Your task to perform on an android device: Add dell xps to the cart on newegg.com Image 0: 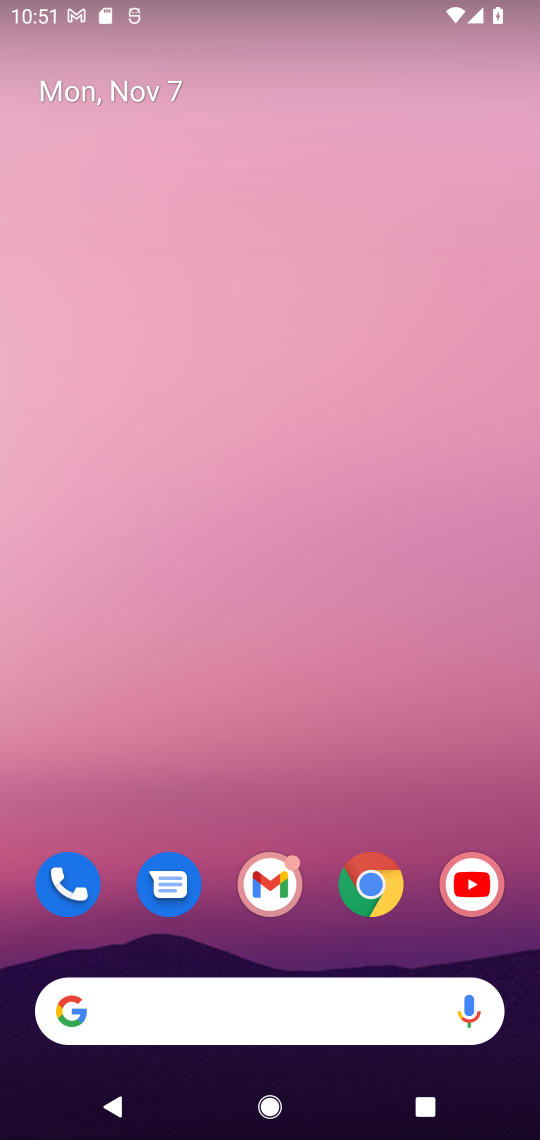
Step 0: click (365, 867)
Your task to perform on an android device: Add dell xps to the cart on newegg.com Image 1: 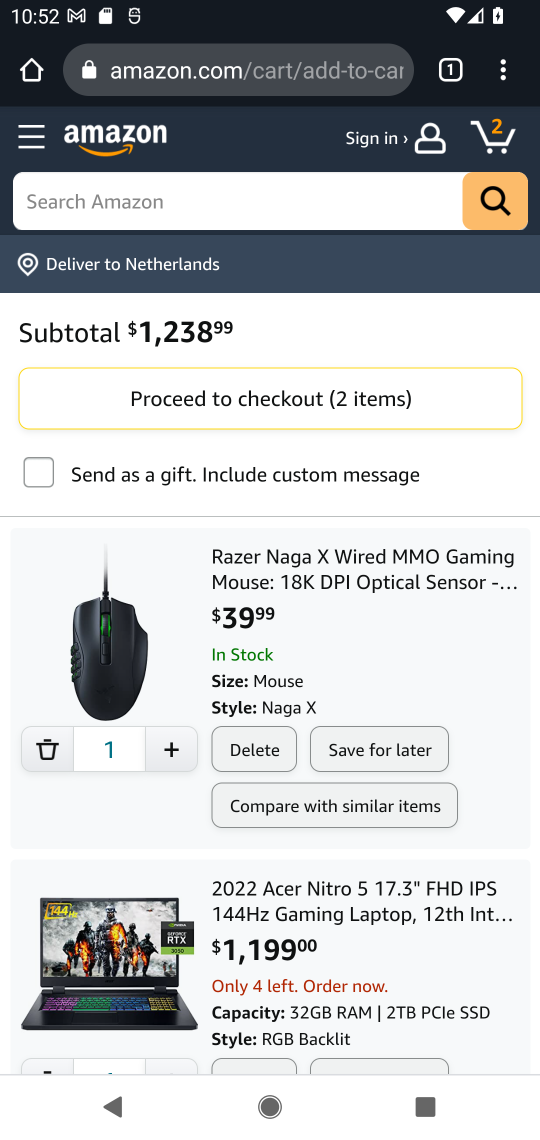
Step 1: click (256, 73)
Your task to perform on an android device: Add dell xps to the cart on newegg.com Image 2: 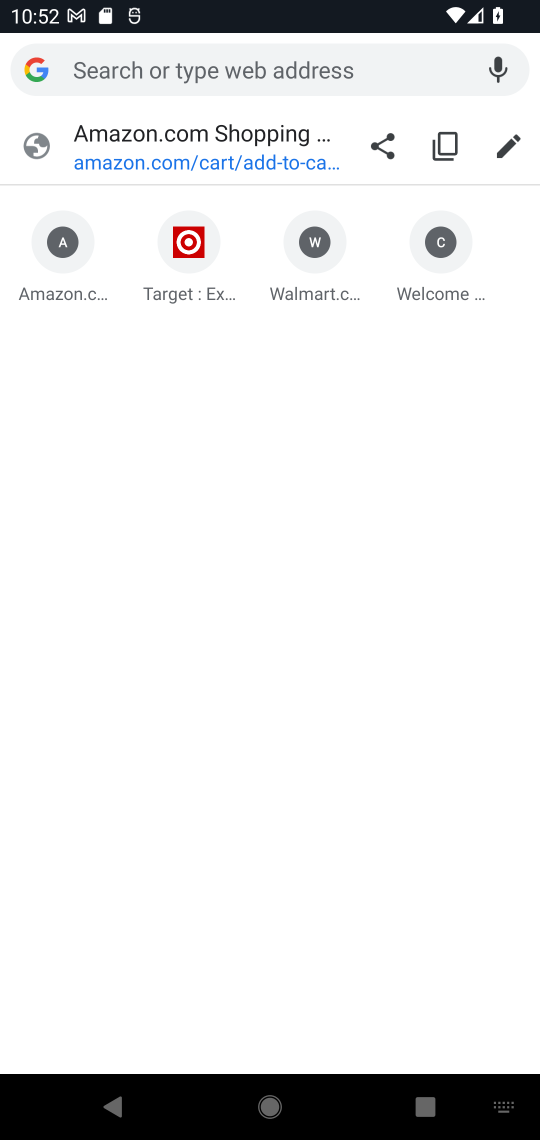
Step 2: type "newegg.com"
Your task to perform on an android device: Add dell xps to the cart on newegg.com Image 3: 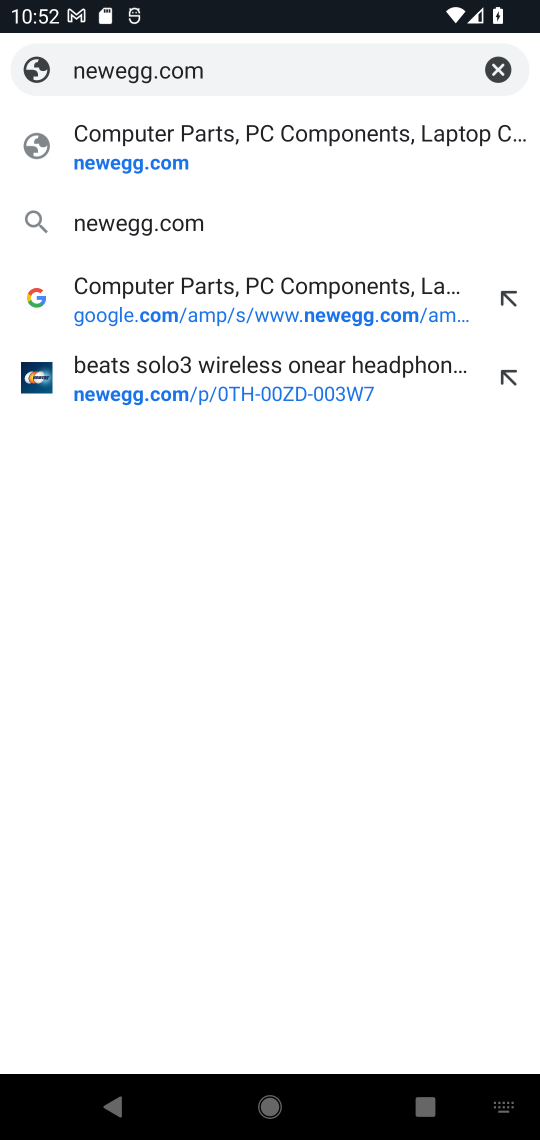
Step 3: click (186, 219)
Your task to perform on an android device: Add dell xps to the cart on newegg.com Image 4: 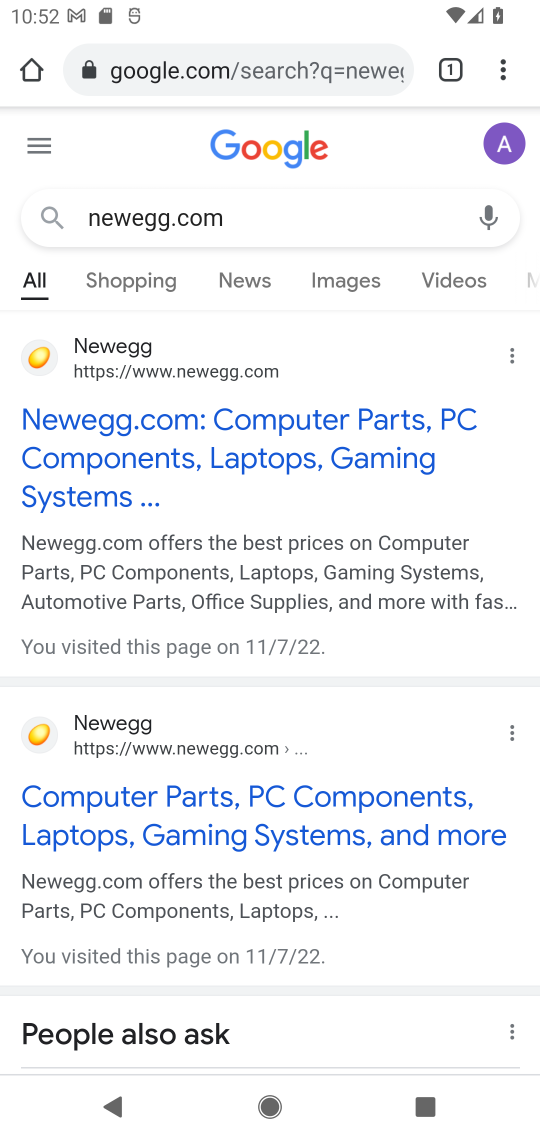
Step 4: click (142, 370)
Your task to perform on an android device: Add dell xps to the cart on newegg.com Image 5: 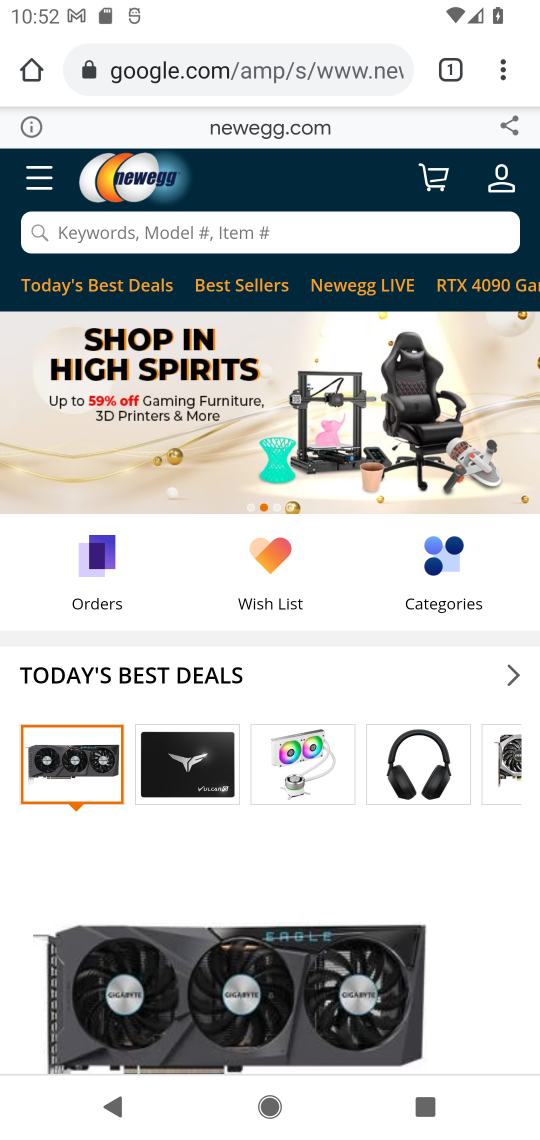
Step 5: click (220, 227)
Your task to perform on an android device: Add dell xps to the cart on newegg.com Image 6: 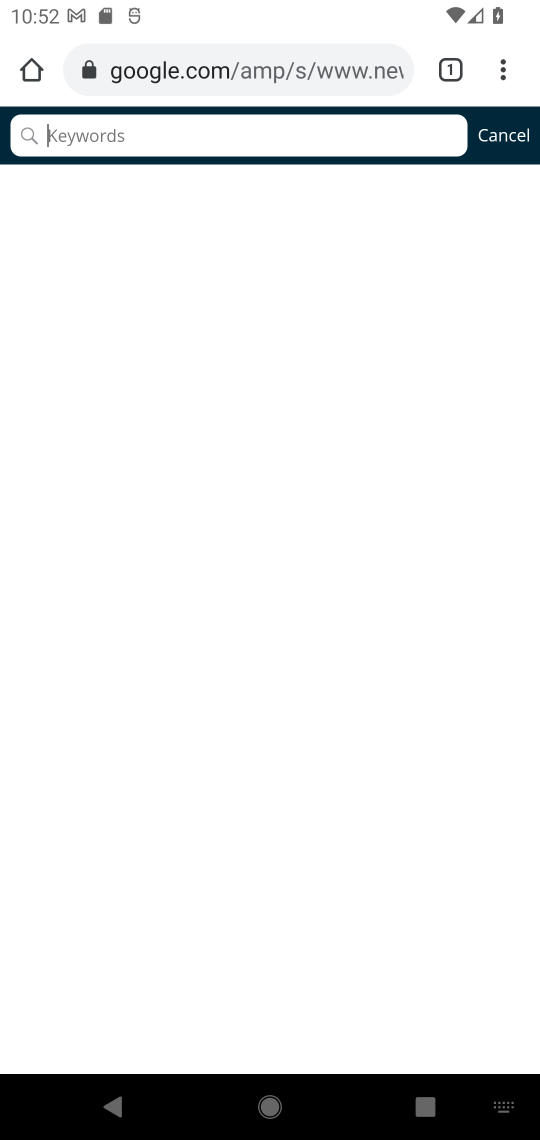
Step 6: type "dell xps"
Your task to perform on an android device: Add dell xps to the cart on newegg.com Image 7: 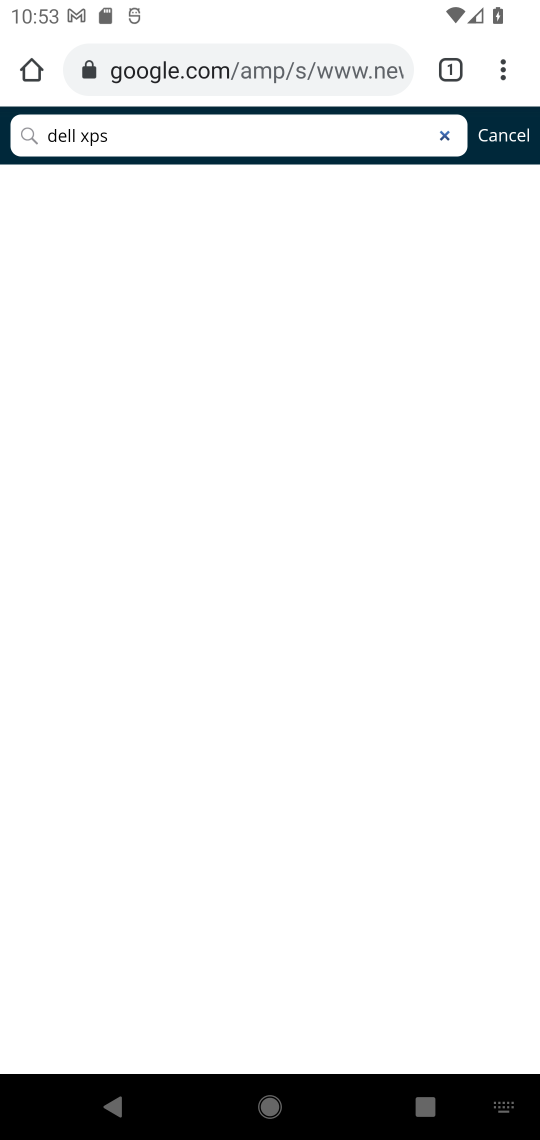
Step 7: click (362, 130)
Your task to perform on an android device: Add dell xps to the cart on newegg.com Image 8: 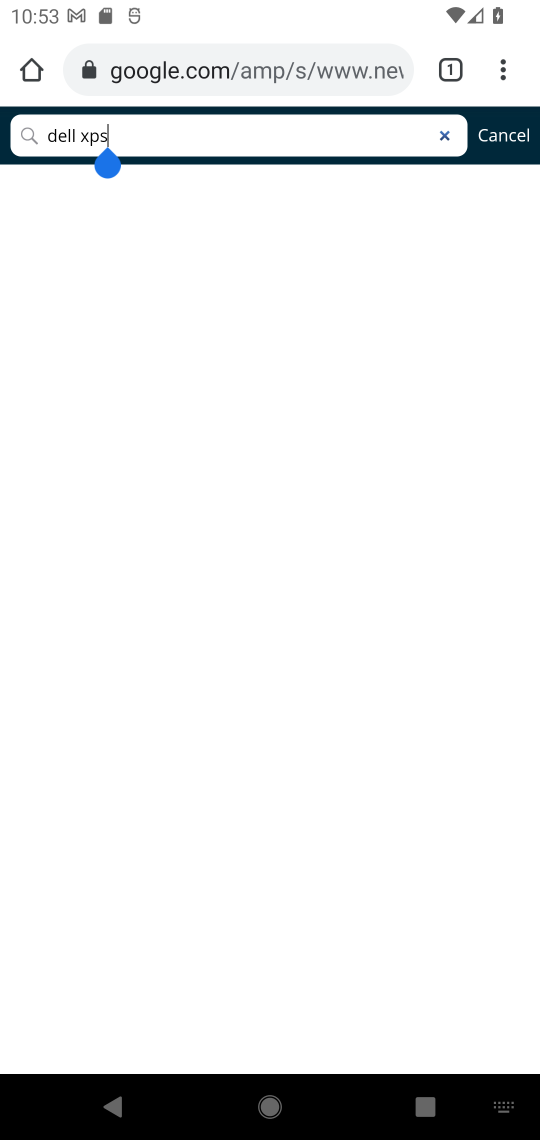
Step 8: click (380, 249)
Your task to perform on an android device: Add dell xps to the cart on newegg.com Image 9: 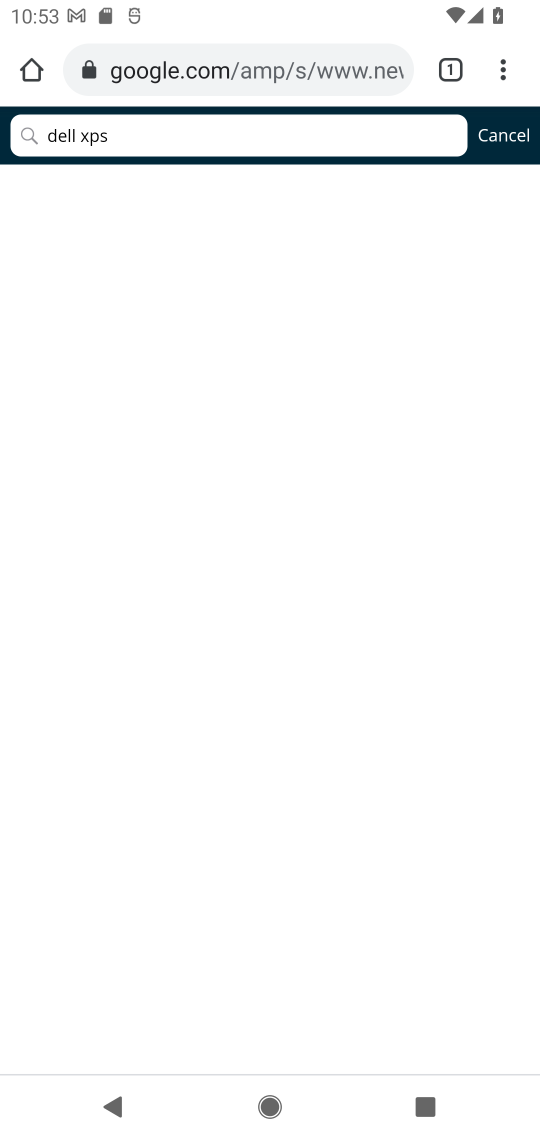
Step 9: task complete